Your task to perform on an android device: Go to settings Image 0: 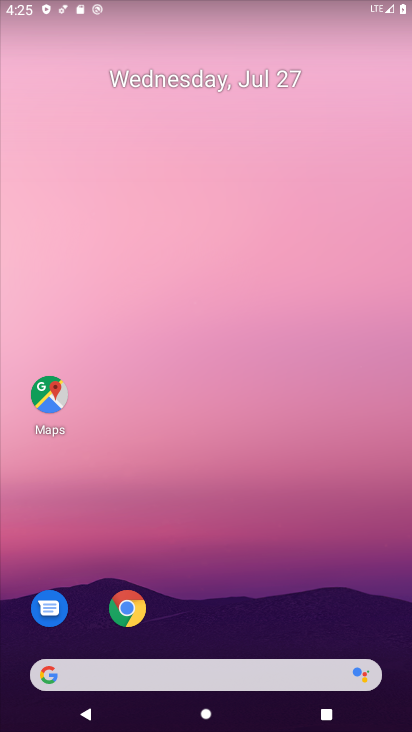
Step 0: click (246, 266)
Your task to perform on an android device: Go to settings Image 1: 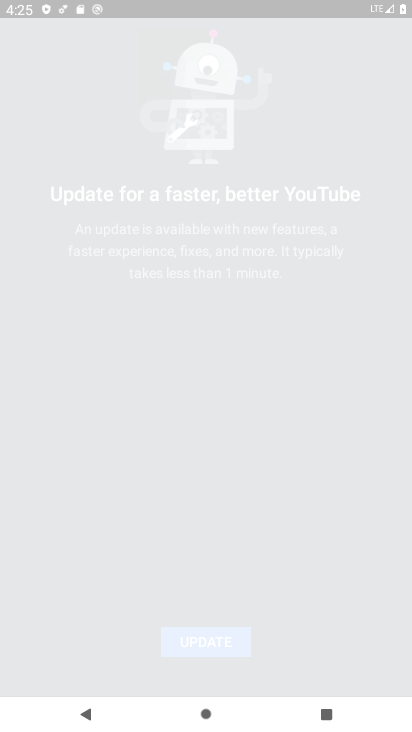
Step 1: drag from (282, 573) to (256, 321)
Your task to perform on an android device: Go to settings Image 2: 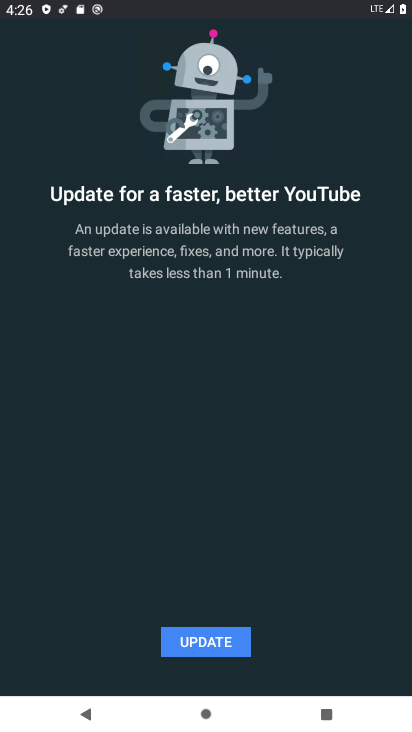
Step 2: press back button
Your task to perform on an android device: Go to settings Image 3: 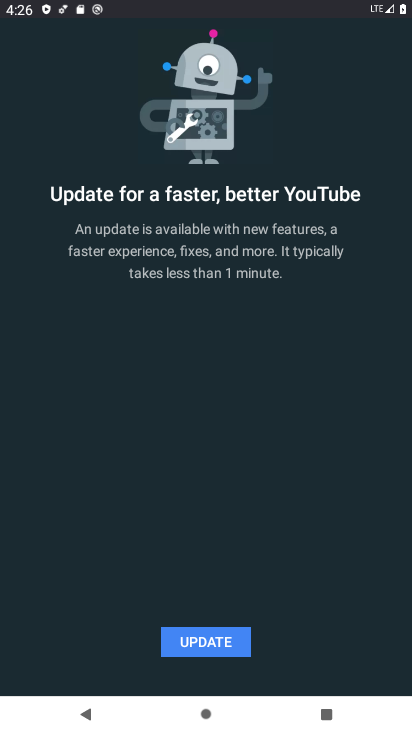
Step 3: press back button
Your task to perform on an android device: Go to settings Image 4: 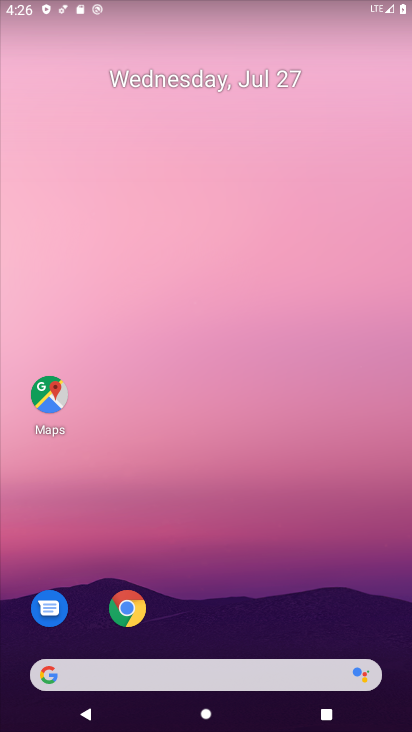
Step 4: drag from (283, 651) to (229, 192)
Your task to perform on an android device: Go to settings Image 5: 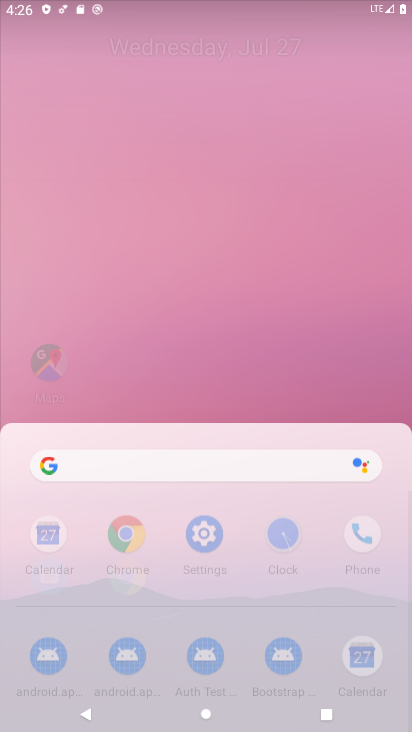
Step 5: drag from (252, 339) to (218, 138)
Your task to perform on an android device: Go to settings Image 6: 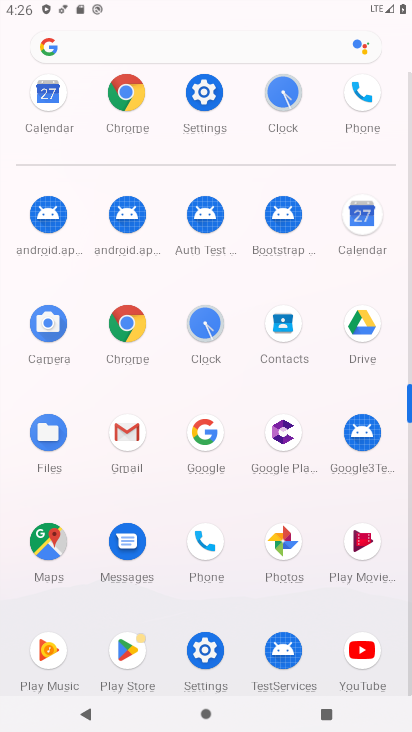
Step 6: click (201, 655)
Your task to perform on an android device: Go to settings Image 7: 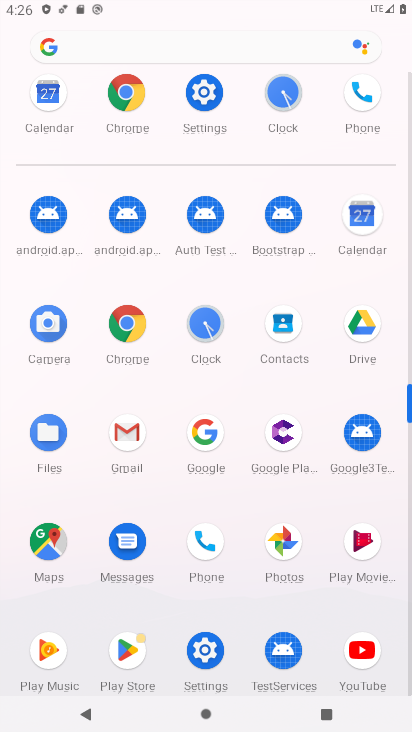
Step 7: click (201, 655)
Your task to perform on an android device: Go to settings Image 8: 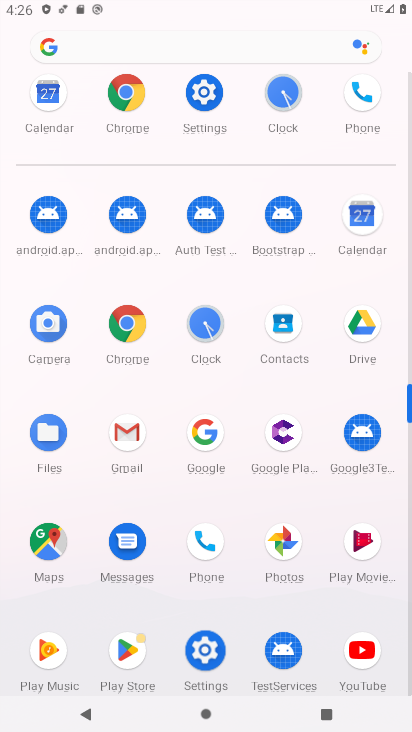
Step 8: click (205, 656)
Your task to perform on an android device: Go to settings Image 9: 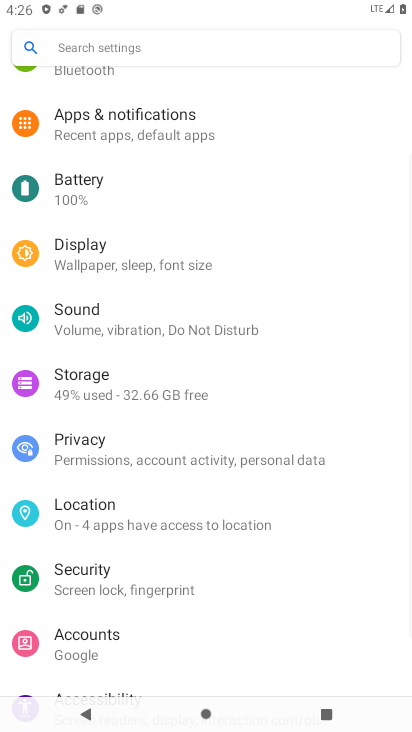
Step 9: drag from (200, 404) to (247, 648)
Your task to perform on an android device: Go to settings Image 10: 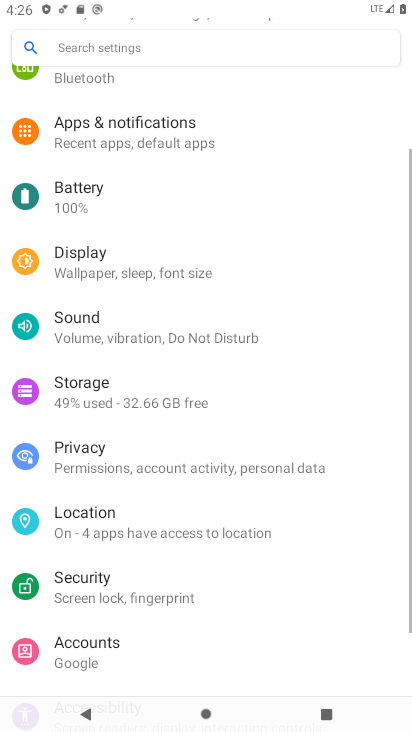
Step 10: drag from (183, 269) to (216, 589)
Your task to perform on an android device: Go to settings Image 11: 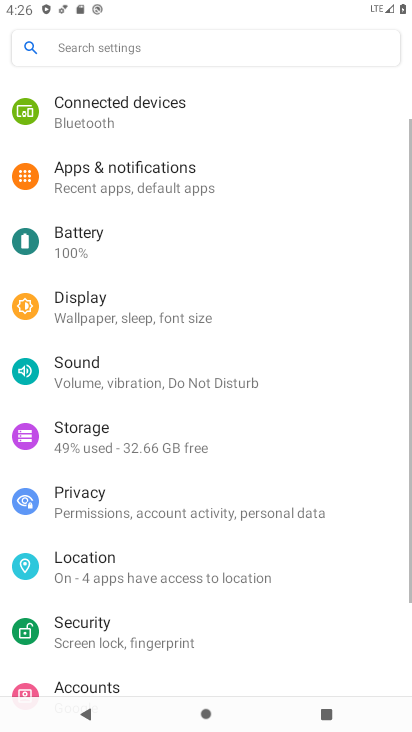
Step 11: drag from (162, 271) to (225, 658)
Your task to perform on an android device: Go to settings Image 12: 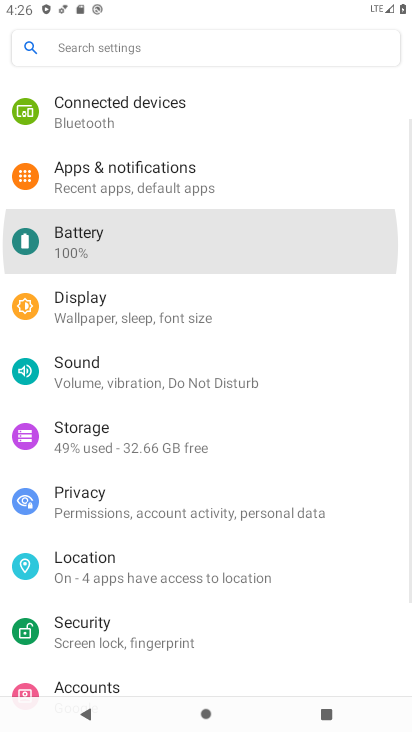
Step 12: drag from (144, 233) to (209, 564)
Your task to perform on an android device: Go to settings Image 13: 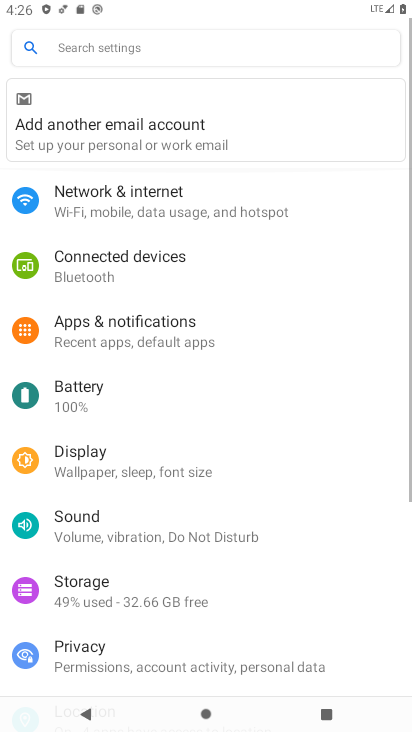
Step 13: drag from (232, 285) to (324, 730)
Your task to perform on an android device: Go to settings Image 14: 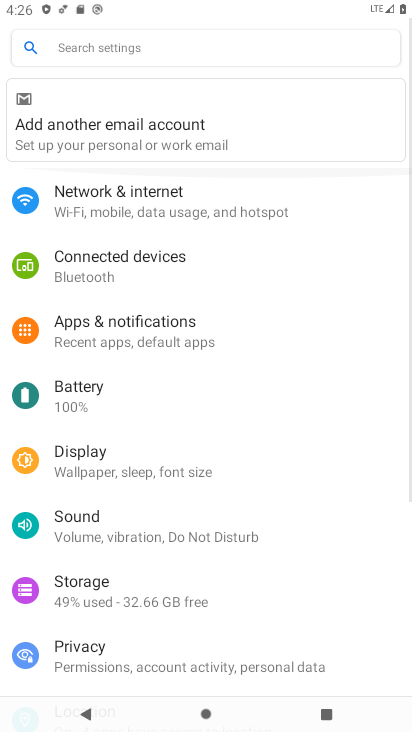
Step 14: click (191, 615)
Your task to perform on an android device: Go to settings Image 15: 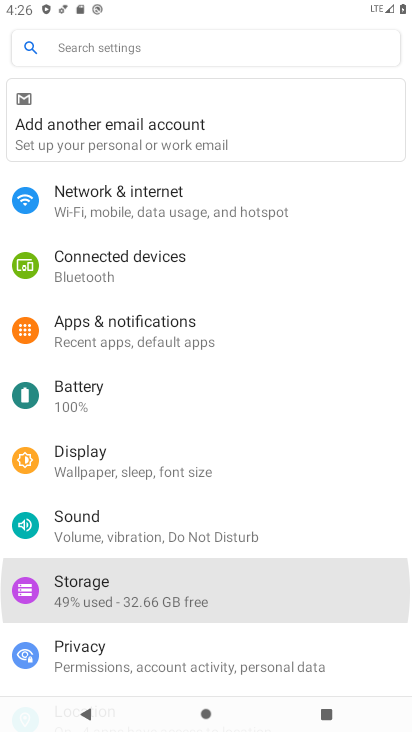
Step 15: drag from (168, 464) to (223, 709)
Your task to perform on an android device: Go to settings Image 16: 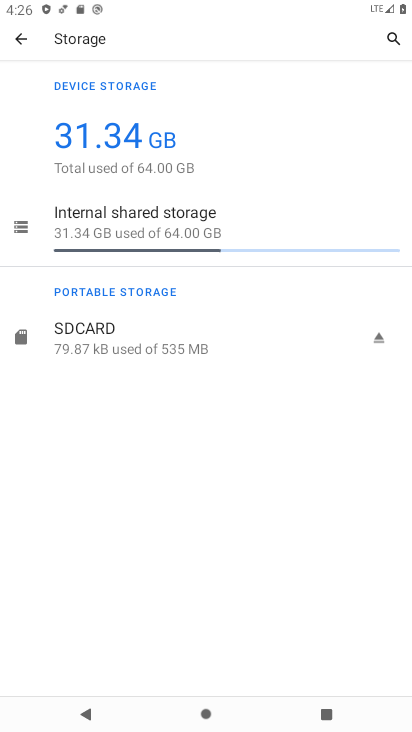
Step 16: drag from (196, 375) to (256, 621)
Your task to perform on an android device: Go to settings Image 17: 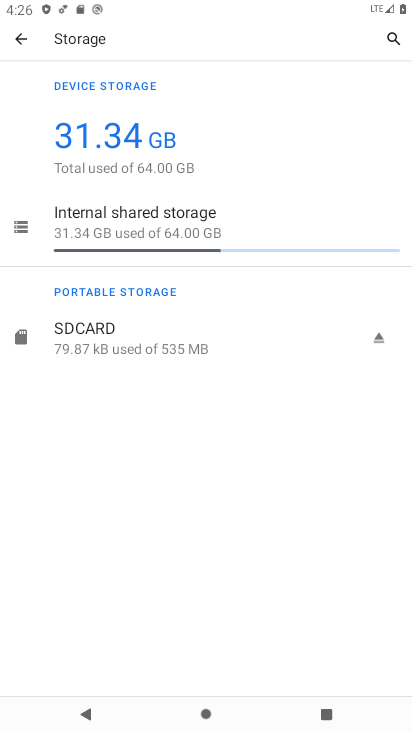
Step 17: click (22, 39)
Your task to perform on an android device: Go to settings Image 18: 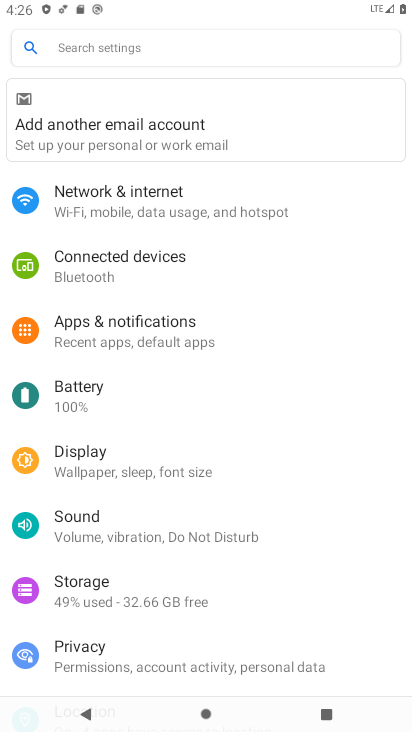
Step 18: task complete